Your task to perform on an android device: turn on priority inbox in the gmail app Image 0: 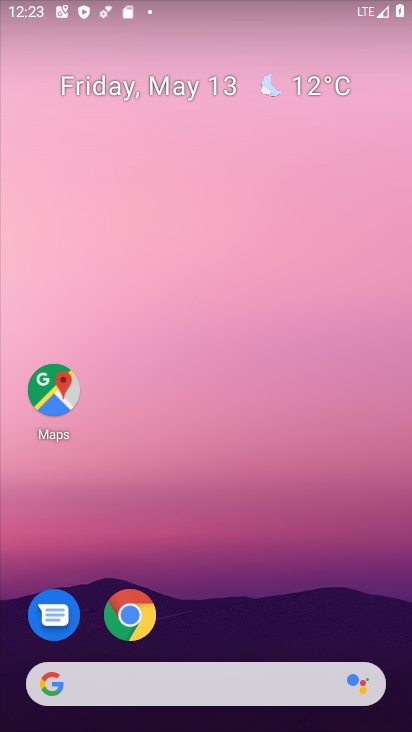
Step 0: drag from (197, 622) to (197, 122)
Your task to perform on an android device: turn on priority inbox in the gmail app Image 1: 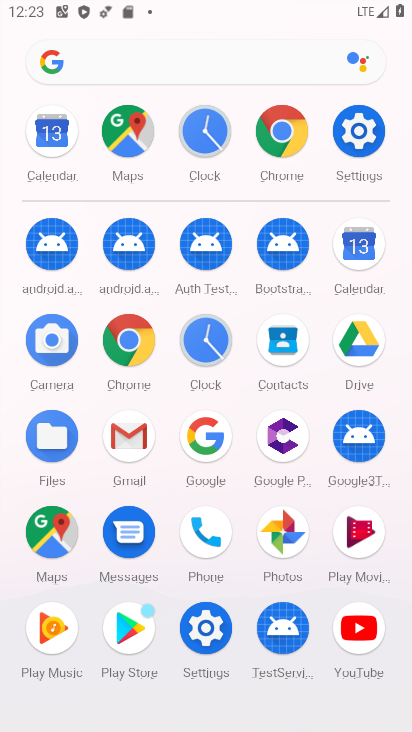
Step 1: click (147, 442)
Your task to perform on an android device: turn on priority inbox in the gmail app Image 2: 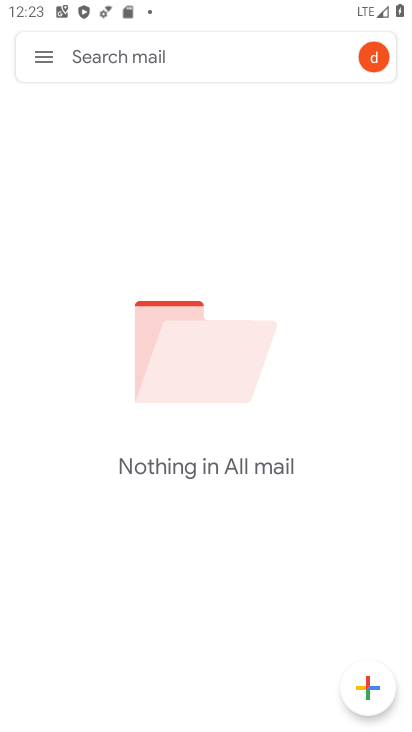
Step 2: click (54, 55)
Your task to perform on an android device: turn on priority inbox in the gmail app Image 3: 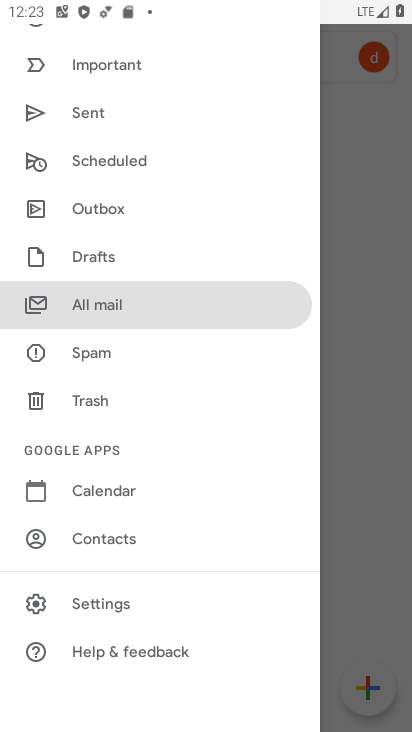
Step 3: click (166, 611)
Your task to perform on an android device: turn on priority inbox in the gmail app Image 4: 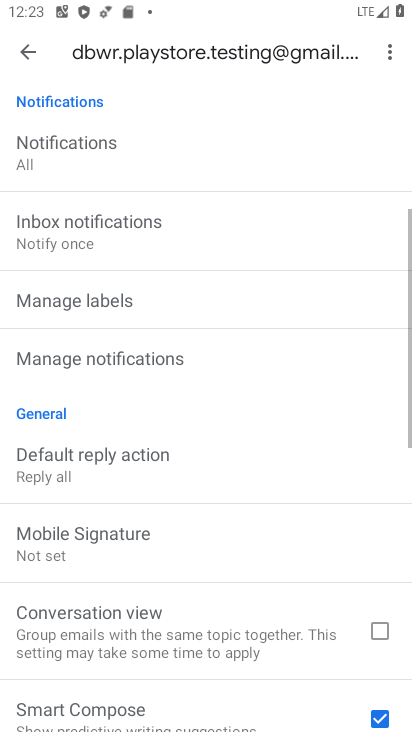
Step 4: drag from (173, 605) to (176, 442)
Your task to perform on an android device: turn on priority inbox in the gmail app Image 5: 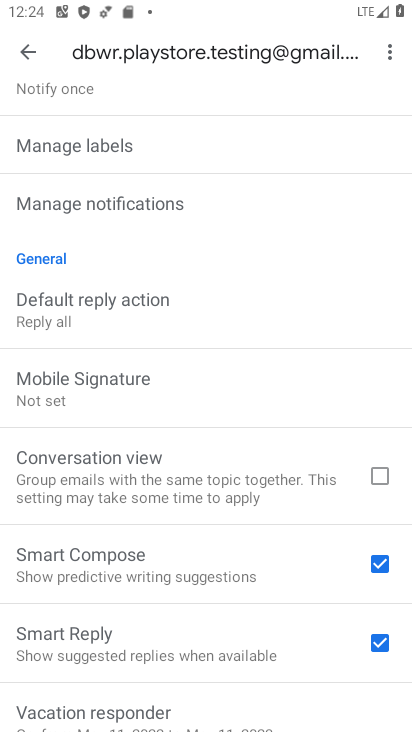
Step 5: drag from (185, 246) to (212, 280)
Your task to perform on an android device: turn on priority inbox in the gmail app Image 6: 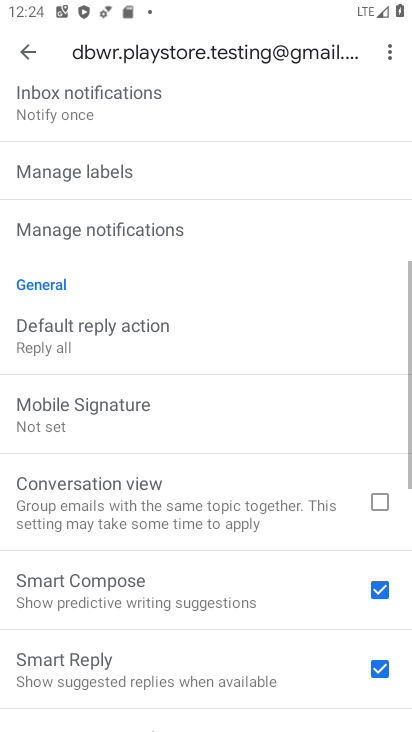
Step 6: drag from (198, 600) to (198, 356)
Your task to perform on an android device: turn on priority inbox in the gmail app Image 7: 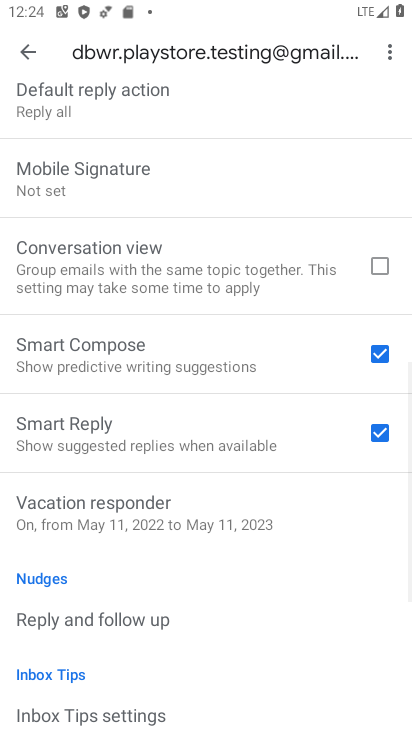
Step 7: drag from (194, 608) to (198, 377)
Your task to perform on an android device: turn on priority inbox in the gmail app Image 8: 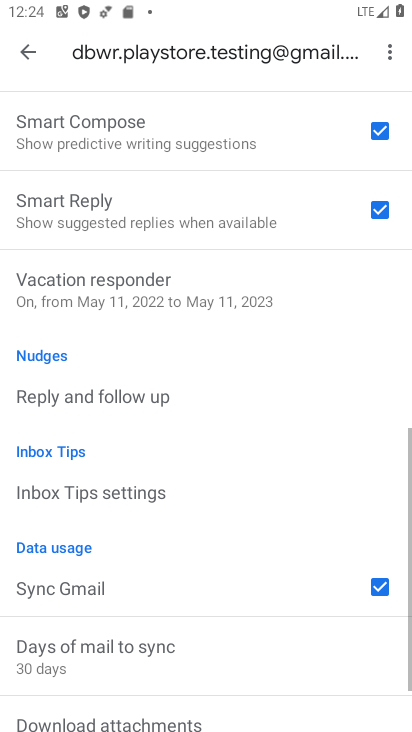
Step 8: drag from (198, 587) to (198, 333)
Your task to perform on an android device: turn on priority inbox in the gmail app Image 9: 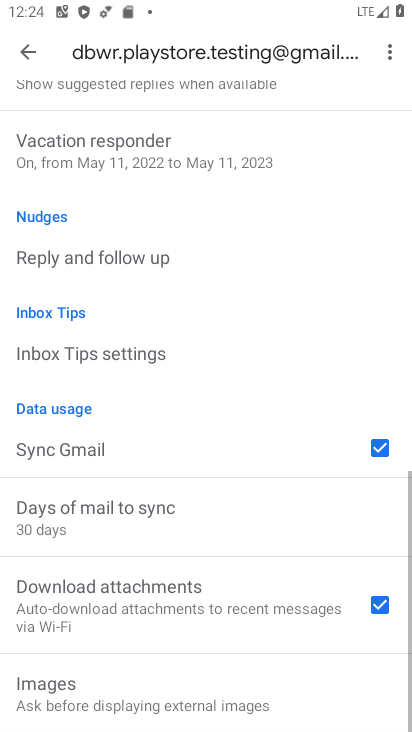
Step 9: drag from (202, 283) to (203, 503)
Your task to perform on an android device: turn on priority inbox in the gmail app Image 10: 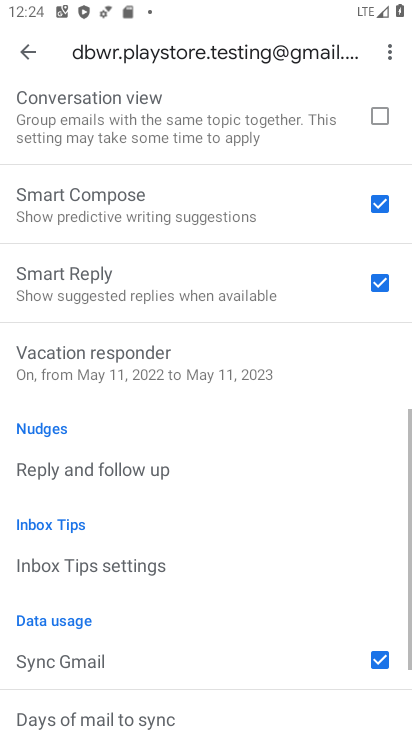
Step 10: drag from (200, 199) to (200, 449)
Your task to perform on an android device: turn on priority inbox in the gmail app Image 11: 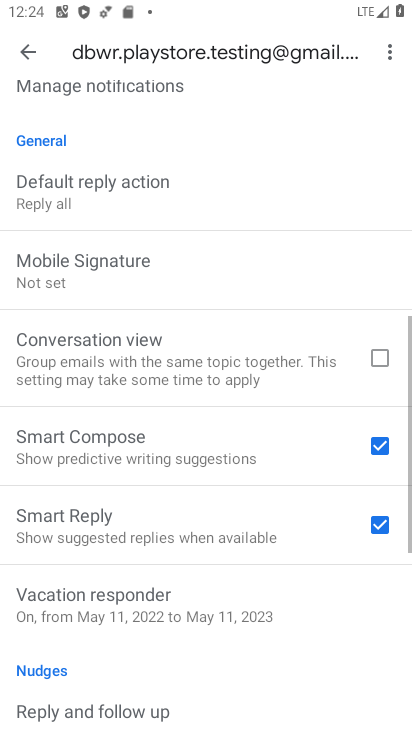
Step 11: drag from (197, 152) to (197, 432)
Your task to perform on an android device: turn on priority inbox in the gmail app Image 12: 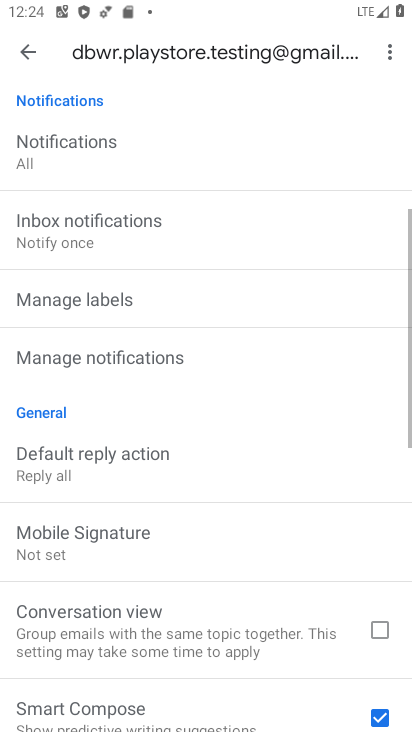
Step 12: drag from (199, 200) to (202, 396)
Your task to perform on an android device: turn on priority inbox in the gmail app Image 13: 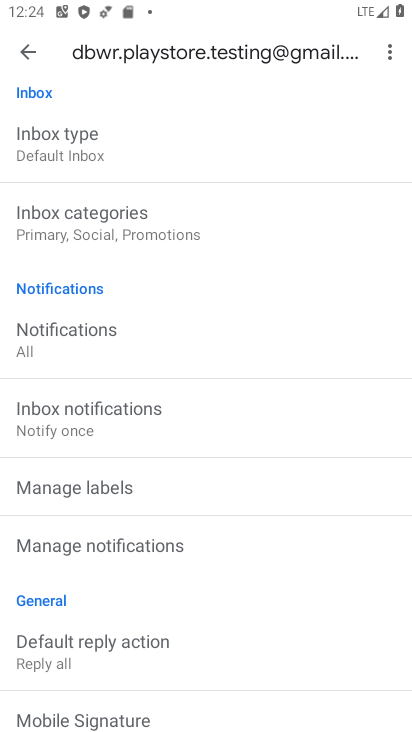
Step 13: drag from (181, 206) to (180, 376)
Your task to perform on an android device: turn on priority inbox in the gmail app Image 14: 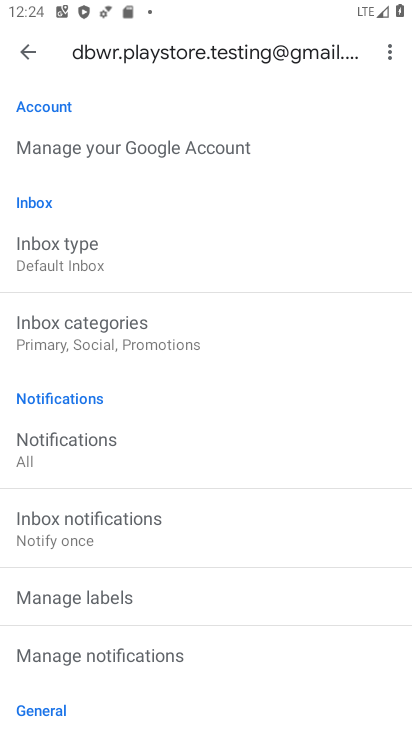
Step 14: drag from (219, 255) to (239, 375)
Your task to perform on an android device: turn on priority inbox in the gmail app Image 15: 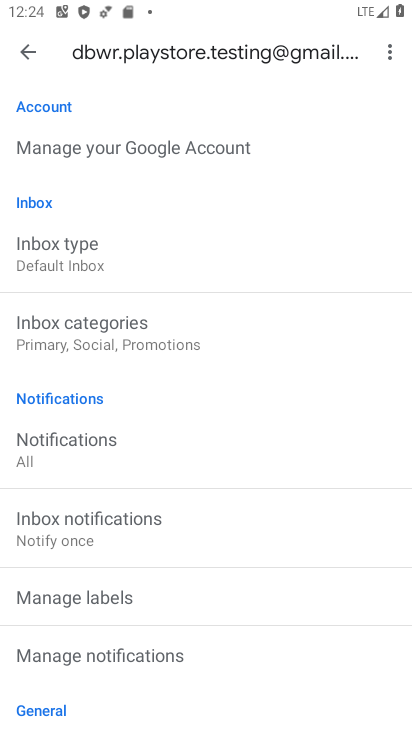
Step 15: drag from (227, 442) to (241, 380)
Your task to perform on an android device: turn on priority inbox in the gmail app Image 16: 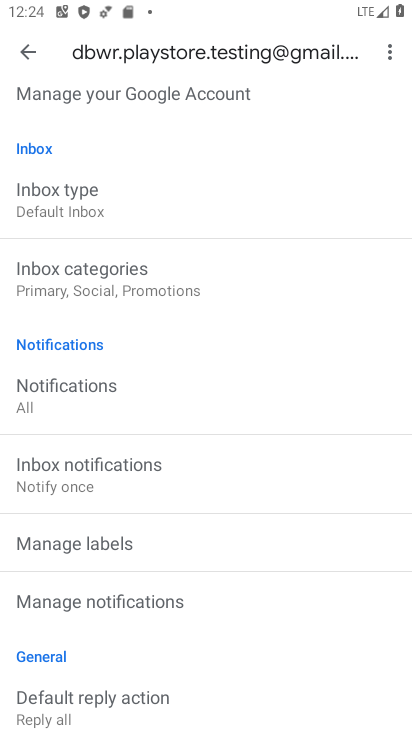
Step 16: click (189, 208)
Your task to perform on an android device: turn on priority inbox in the gmail app Image 17: 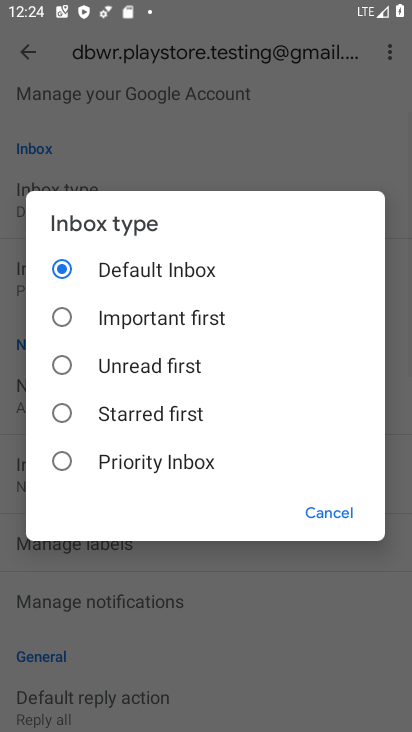
Step 17: click (130, 457)
Your task to perform on an android device: turn on priority inbox in the gmail app Image 18: 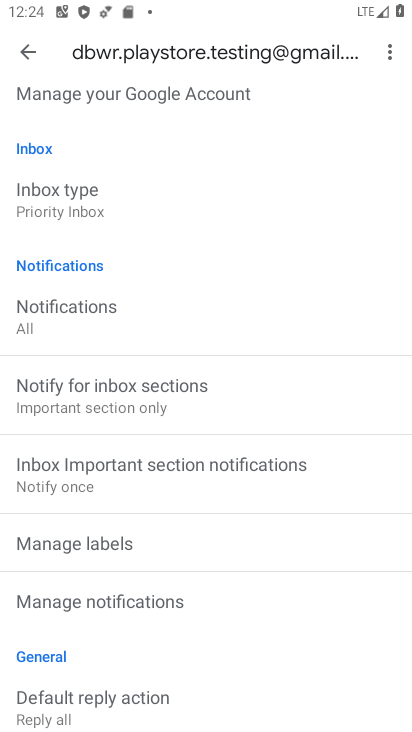
Step 18: task complete